Your task to perform on an android device: Open battery settings Image 0: 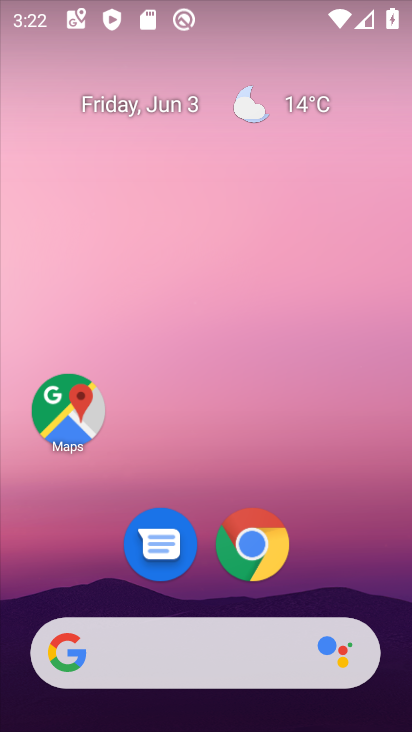
Step 0: drag from (406, 626) to (330, 96)
Your task to perform on an android device: Open battery settings Image 1: 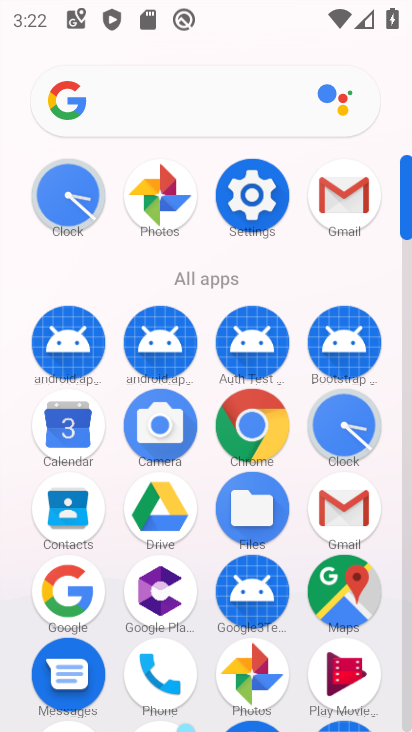
Step 1: click (408, 644)
Your task to perform on an android device: Open battery settings Image 2: 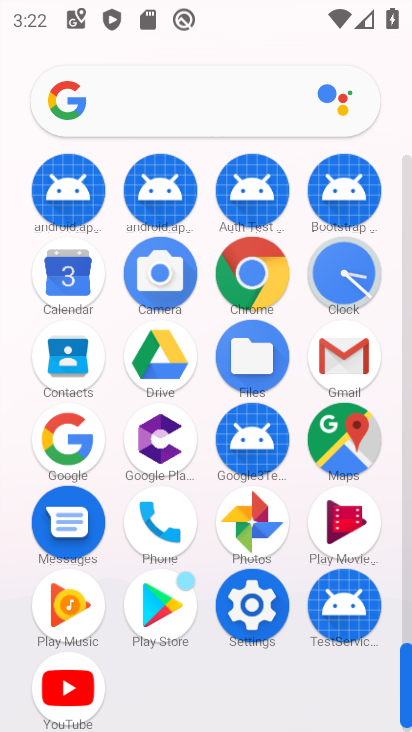
Step 2: click (251, 604)
Your task to perform on an android device: Open battery settings Image 3: 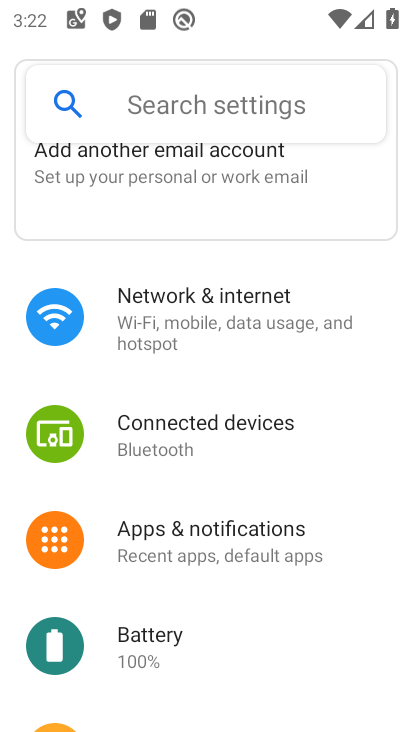
Step 3: click (109, 655)
Your task to perform on an android device: Open battery settings Image 4: 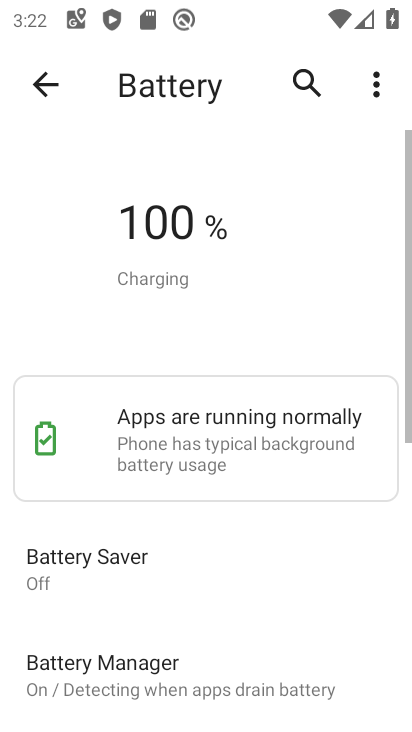
Step 4: task complete